Your task to perform on an android device: Go to privacy settings Image 0: 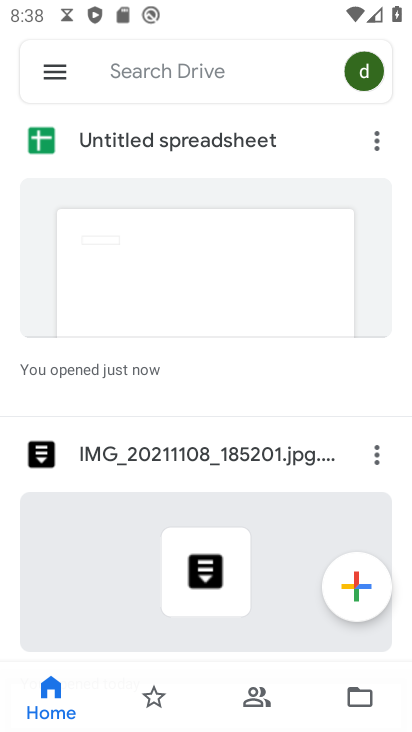
Step 0: press home button
Your task to perform on an android device: Go to privacy settings Image 1: 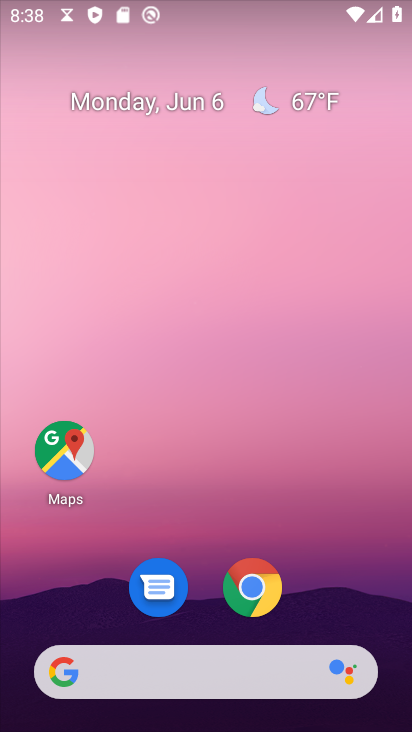
Step 1: drag from (220, 614) to (233, 91)
Your task to perform on an android device: Go to privacy settings Image 2: 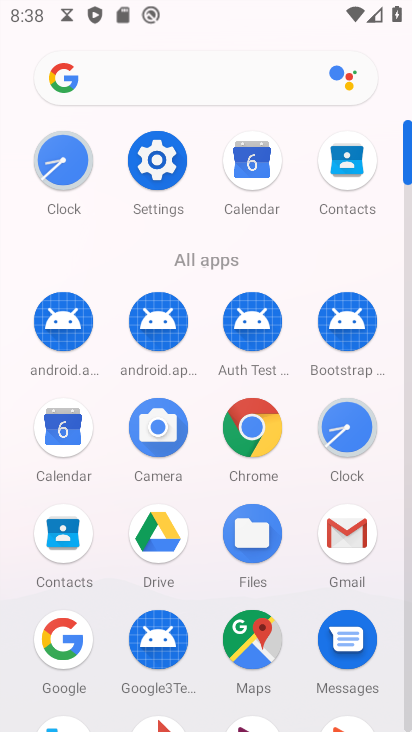
Step 2: click (171, 188)
Your task to perform on an android device: Go to privacy settings Image 3: 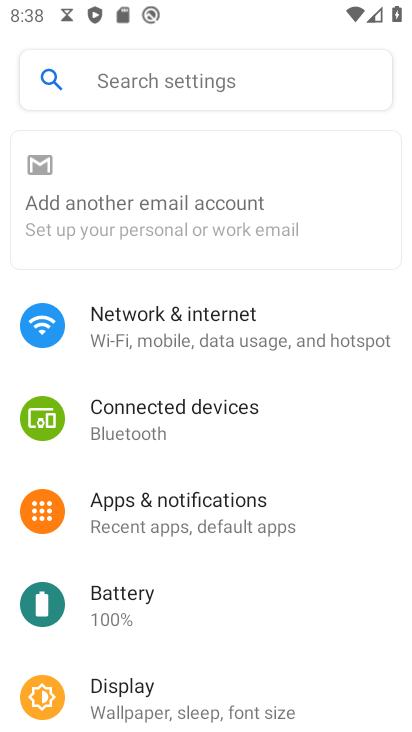
Step 3: drag from (174, 597) to (199, 349)
Your task to perform on an android device: Go to privacy settings Image 4: 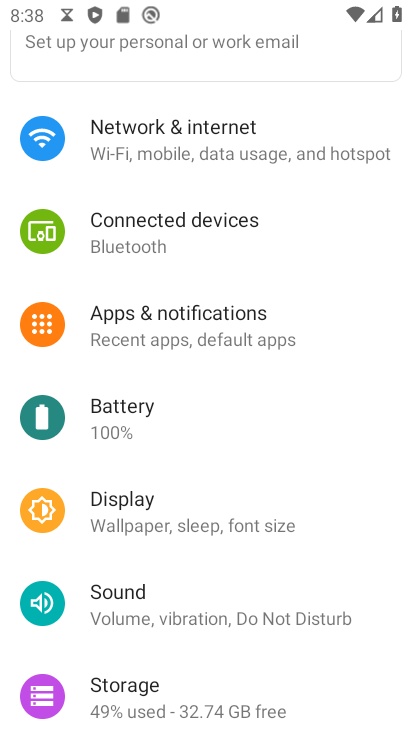
Step 4: drag from (146, 565) to (180, 451)
Your task to perform on an android device: Go to privacy settings Image 5: 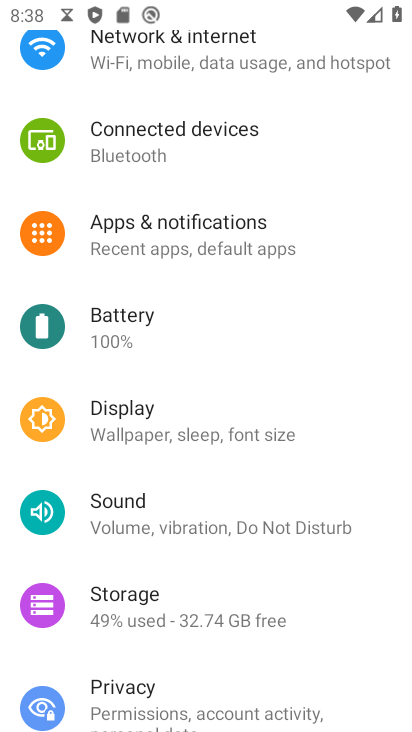
Step 5: drag from (145, 627) to (170, 442)
Your task to perform on an android device: Go to privacy settings Image 6: 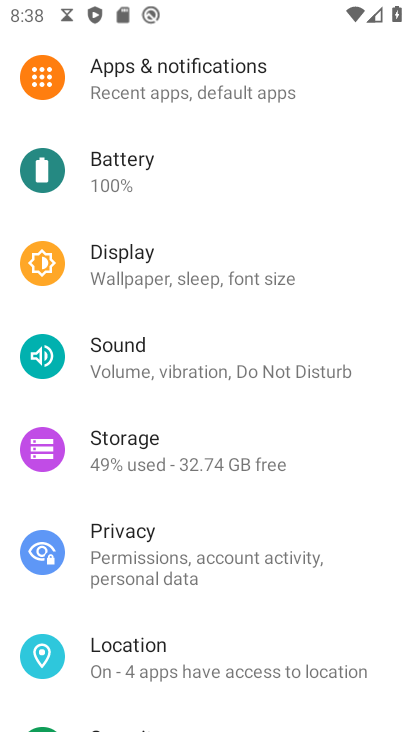
Step 6: click (142, 549)
Your task to perform on an android device: Go to privacy settings Image 7: 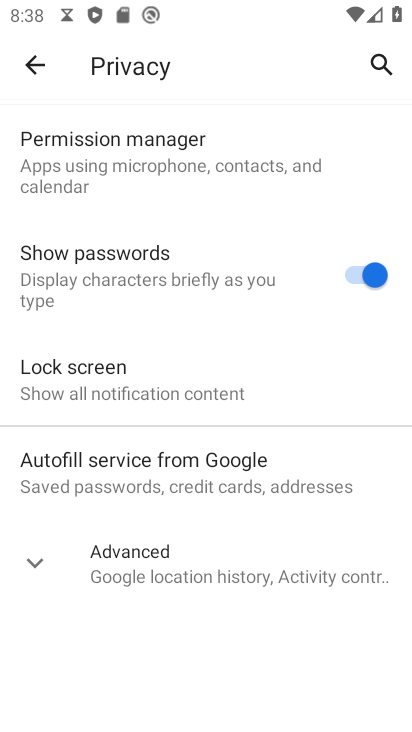
Step 7: task complete